Your task to perform on an android device: Go to calendar. Show me events next week Image 0: 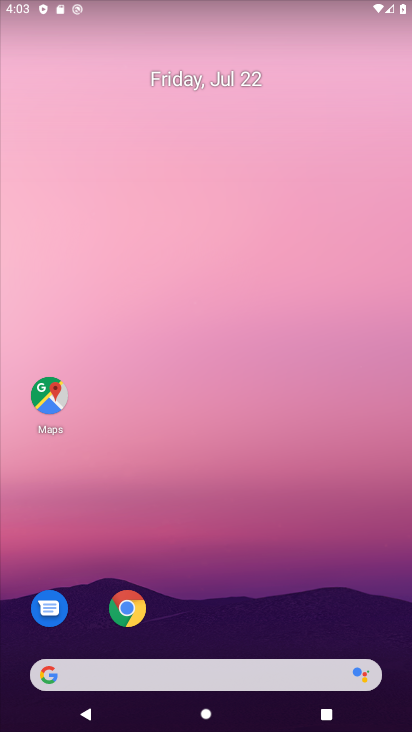
Step 0: press home button
Your task to perform on an android device: Go to calendar. Show me events next week Image 1: 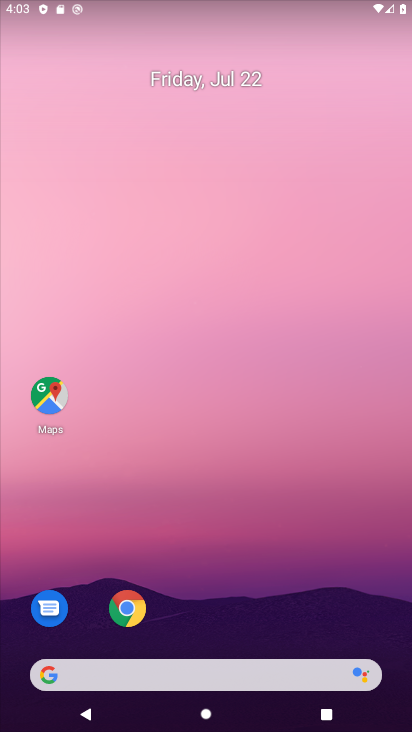
Step 1: drag from (263, 168) to (262, 107)
Your task to perform on an android device: Go to calendar. Show me events next week Image 2: 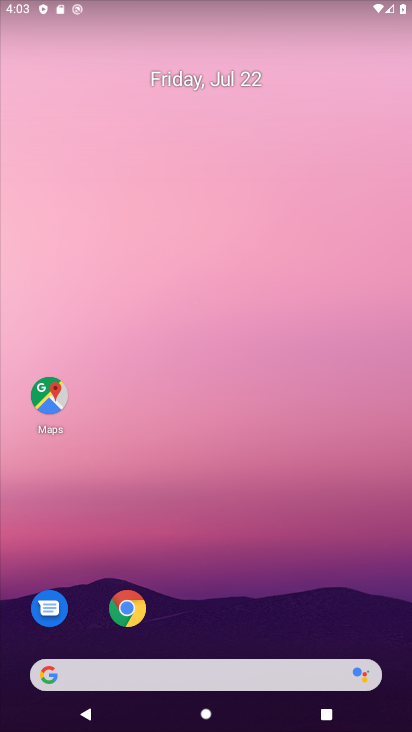
Step 2: drag from (209, 538) to (212, 45)
Your task to perform on an android device: Go to calendar. Show me events next week Image 3: 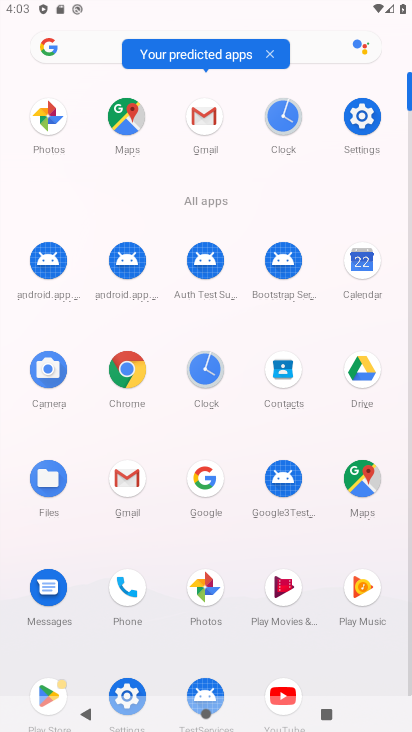
Step 3: click (350, 261)
Your task to perform on an android device: Go to calendar. Show me events next week Image 4: 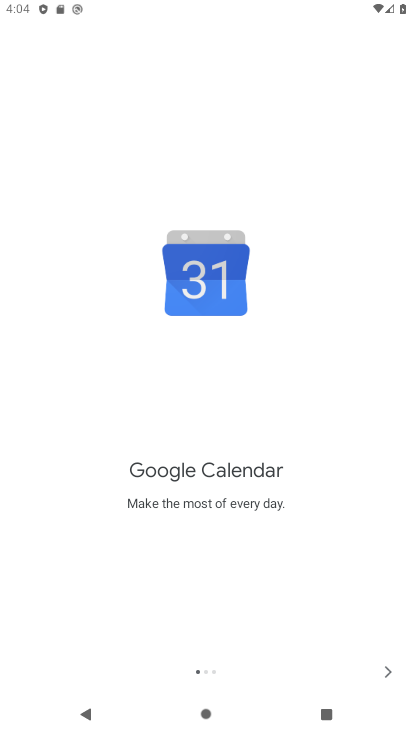
Step 4: click (380, 674)
Your task to perform on an android device: Go to calendar. Show me events next week Image 5: 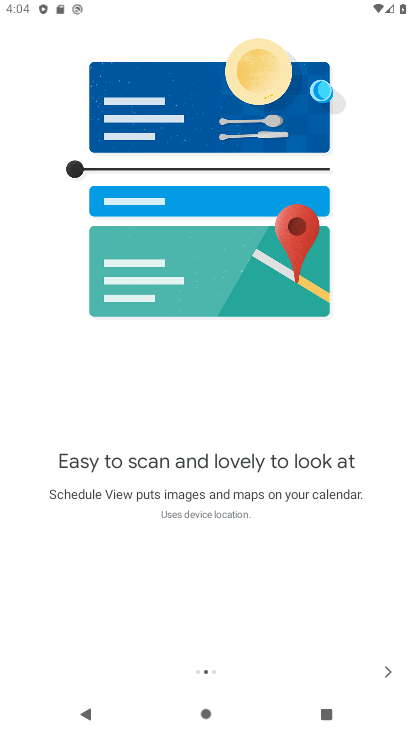
Step 5: click (389, 669)
Your task to perform on an android device: Go to calendar. Show me events next week Image 6: 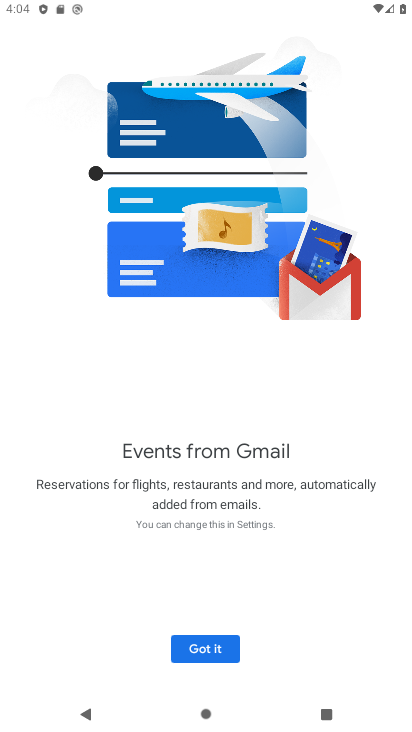
Step 6: click (209, 646)
Your task to perform on an android device: Go to calendar. Show me events next week Image 7: 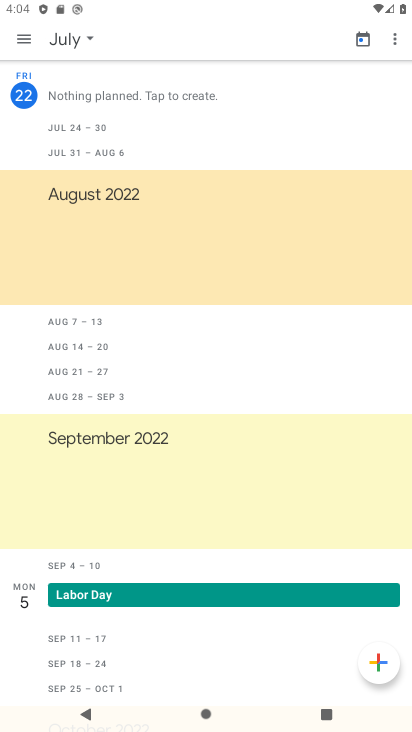
Step 7: click (16, 39)
Your task to perform on an android device: Go to calendar. Show me events next week Image 8: 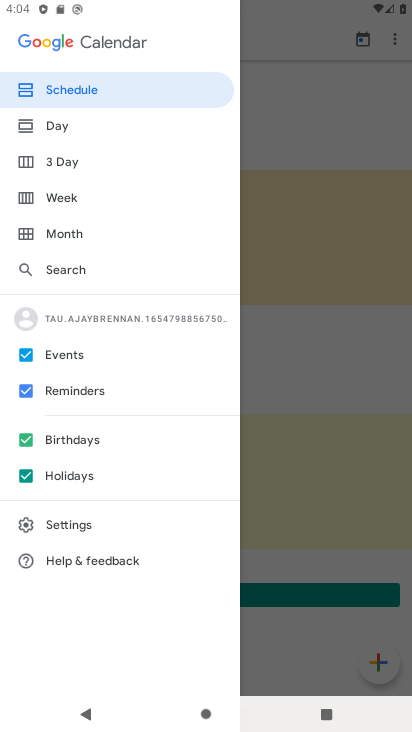
Step 8: click (67, 199)
Your task to perform on an android device: Go to calendar. Show me events next week Image 9: 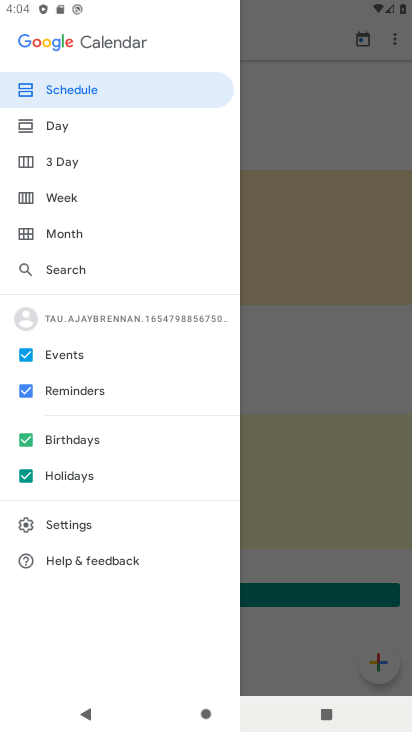
Step 9: click (56, 195)
Your task to perform on an android device: Go to calendar. Show me events next week Image 10: 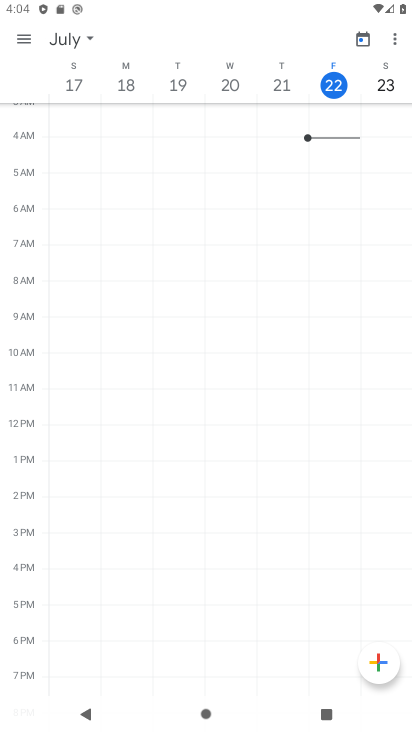
Step 10: task complete